Your task to perform on an android device: Open notification settings Image 0: 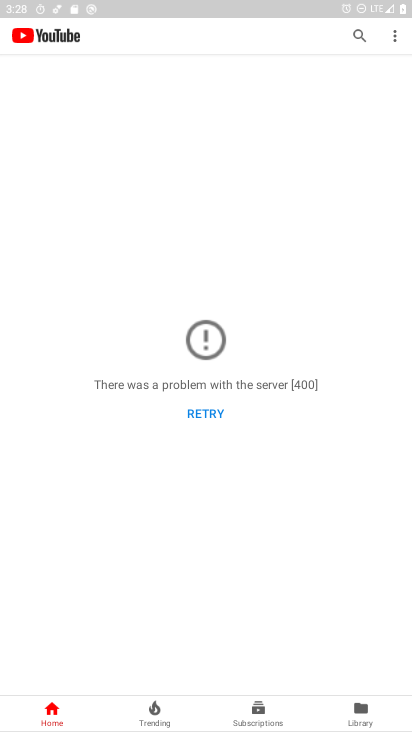
Step 0: press home button
Your task to perform on an android device: Open notification settings Image 1: 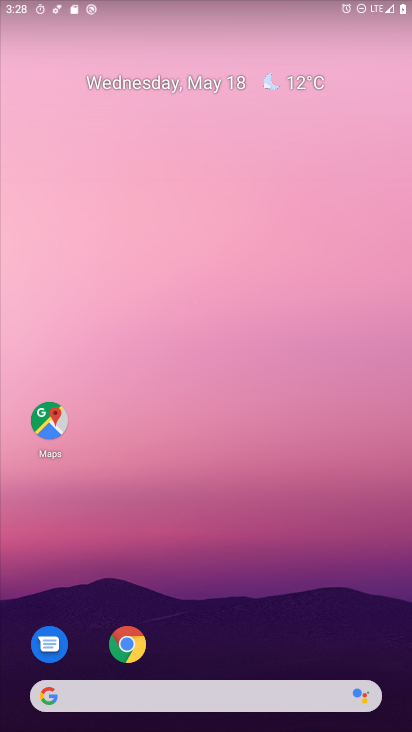
Step 1: drag from (268, 641) to (255, 327)
Your task to perform on an android device: Open notification settings Image 2: 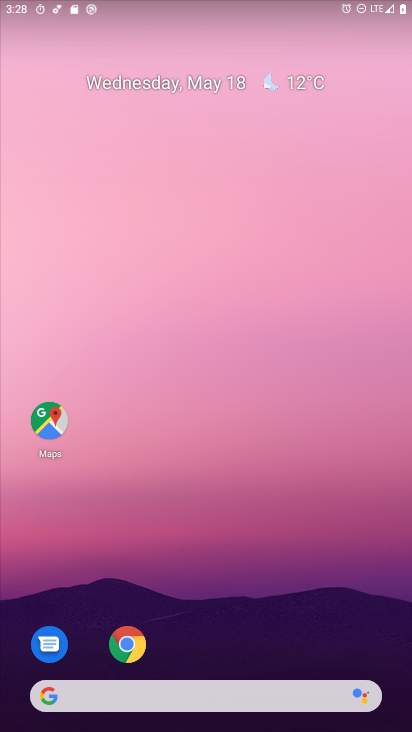
Step 2: drag from (311, 650) to (313, 0)
Your task to perform on an android device: Open notification settings Image 3: 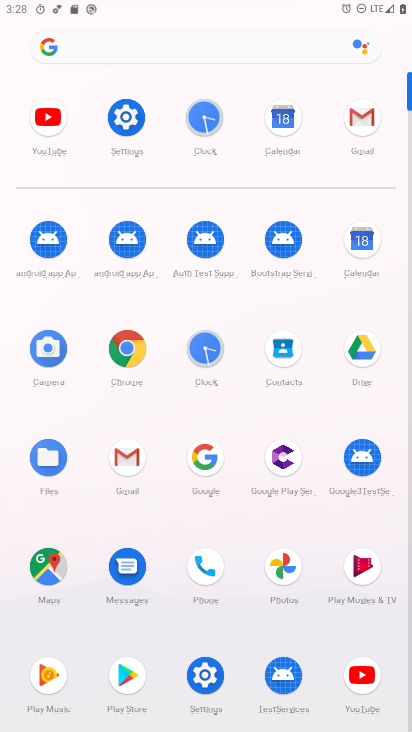
Step 3: click (115, 141)
Your task to perform on an android device: Open notification settings Image 4: 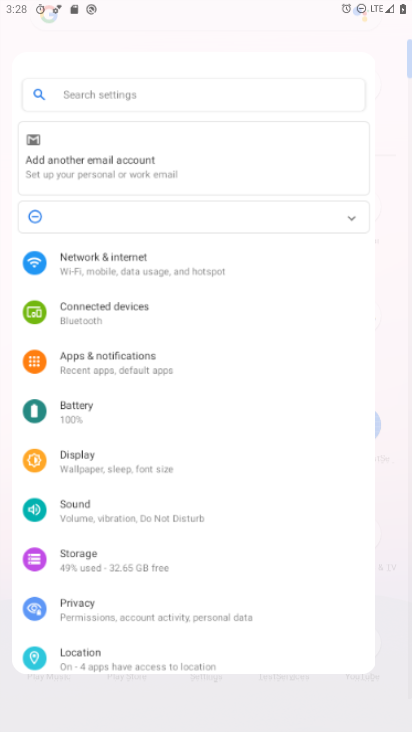
Step 4: click (121, 125)
Your task to perform on an android device: Open notification settings Image 5: 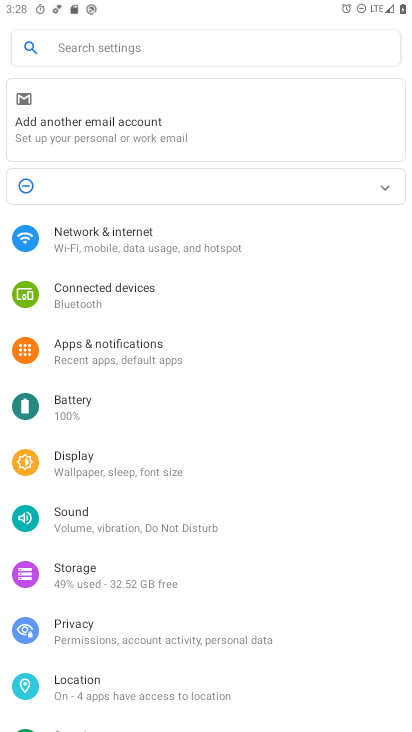
Step 5: click (100, 261)
Your task to perform on an android device: Open notification settings Image 6: 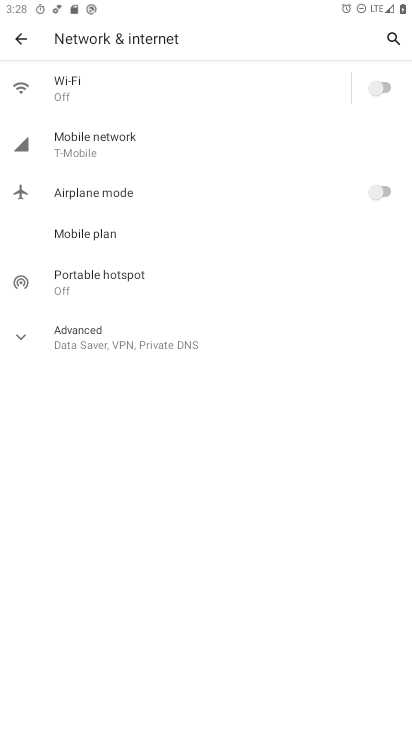
Step 6: click (88, 348)
Your task to perform on an android device: Open notification settings Image 7: 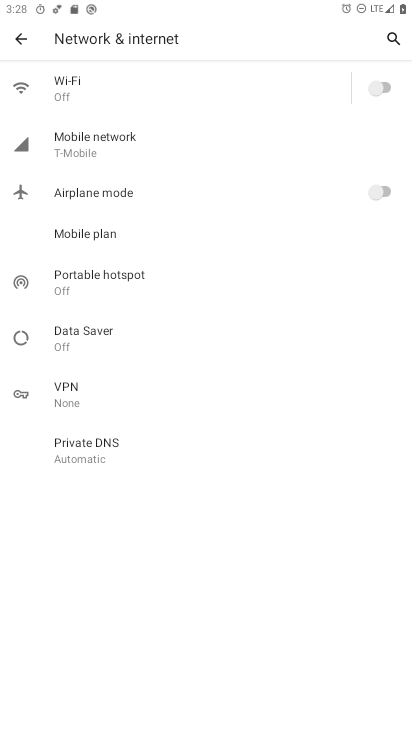
Step 7: click (15, 31)
Your task to perform on an android device: Open notification settings Image 8: 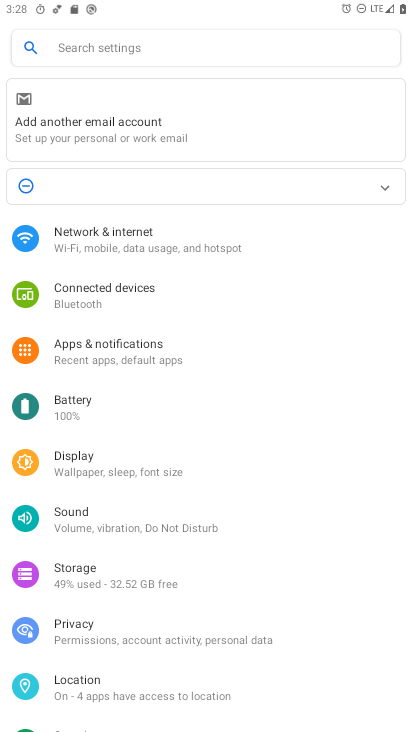
Step 8: click (92, 356)
Your task to perform on an android device: Open notification settings Image 9: 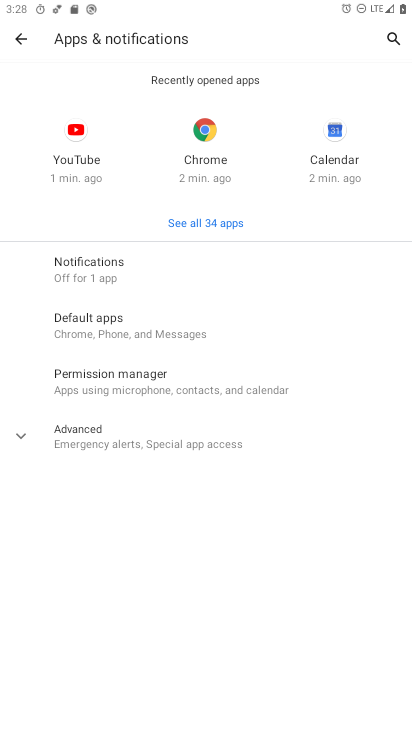
Step 9: click (92, 260)
Your task to perform on an android device: Open notification settings Image 10: 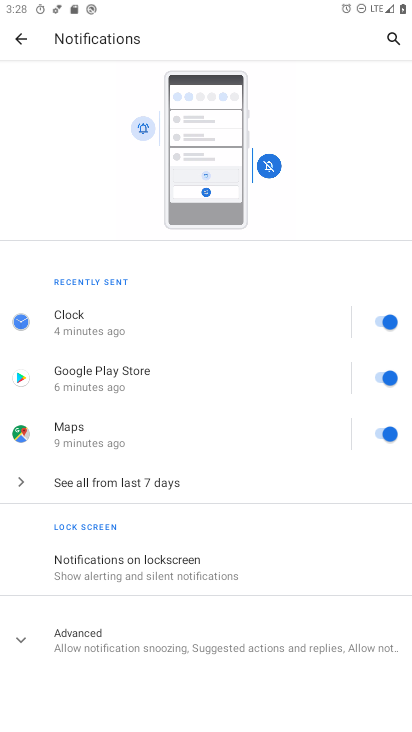
Step 10: task complete